Your task to perform on an android device: Go to Google maps Image 0: 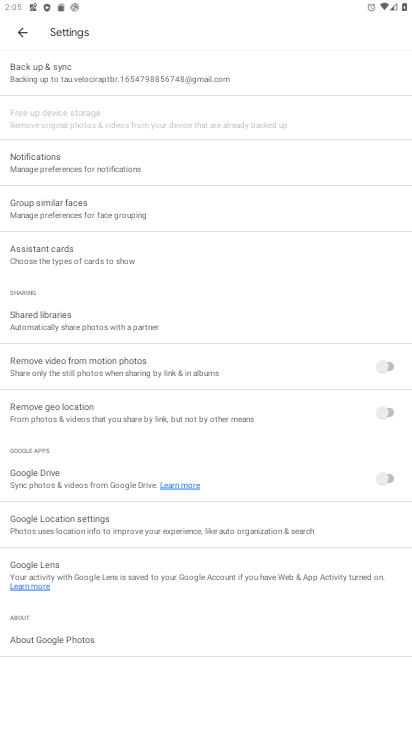
Step 0: press home button
Your task to perform on an android device: Go to Google maps Image 1: 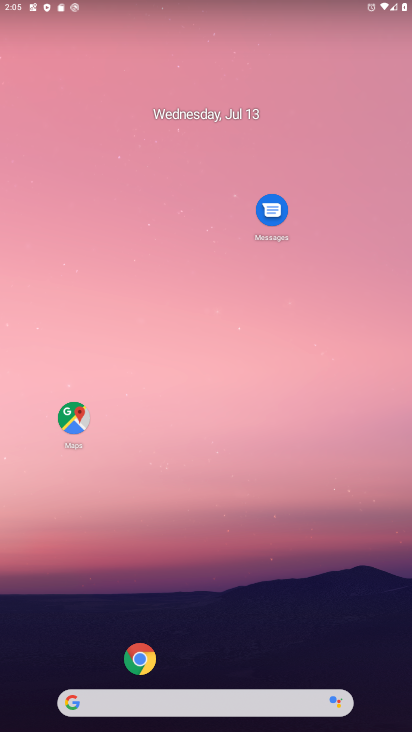
Step 1: click (73, 421)
Your task to perform on an android device: Go to Google maps Image 2: 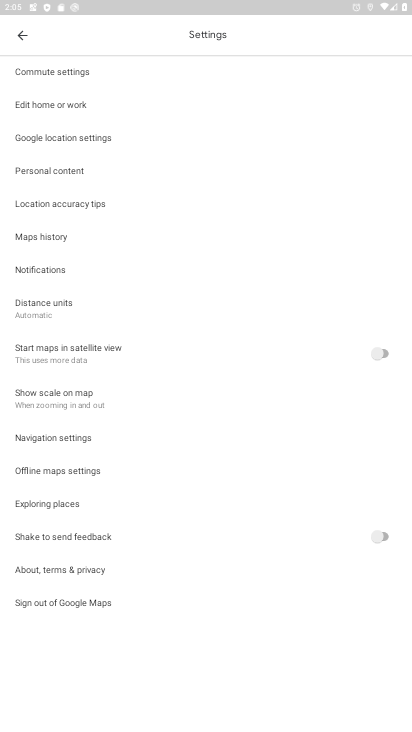
Step 2: click (16, 41)
Your task to perform on an android device: Go to Google maps Image 3: 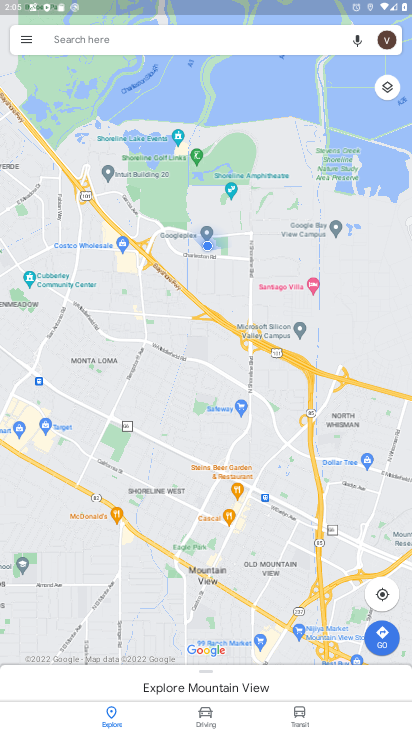
Step 3: task complete